Your task to perform on an android device: change the clock display to digital Image 0: 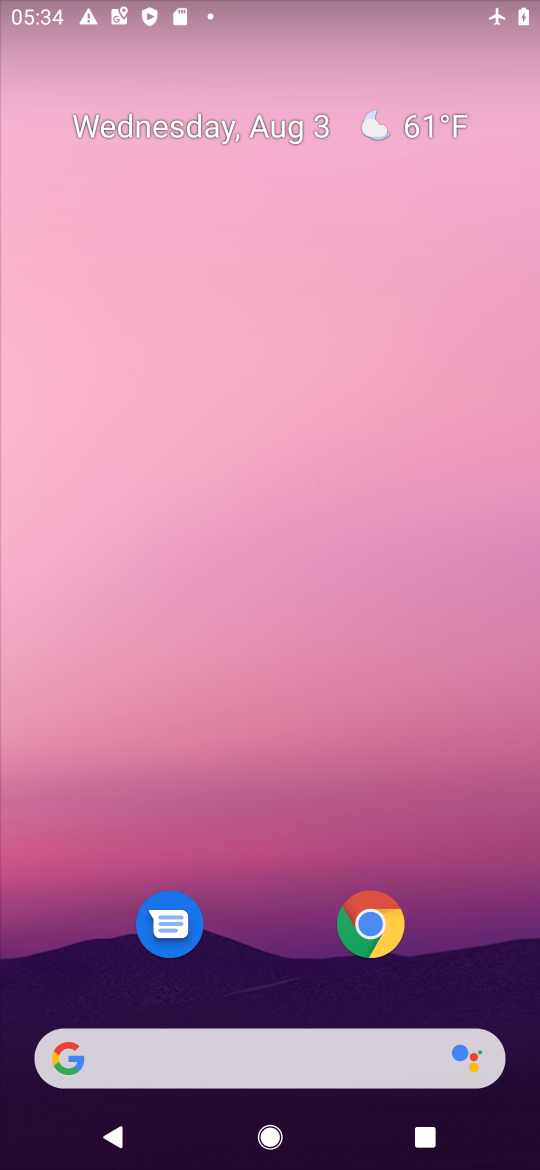
Step 0: drag from (261, 925) to (209, 268)
Your task to perform on an android device: change the clock display to digital Image 1: 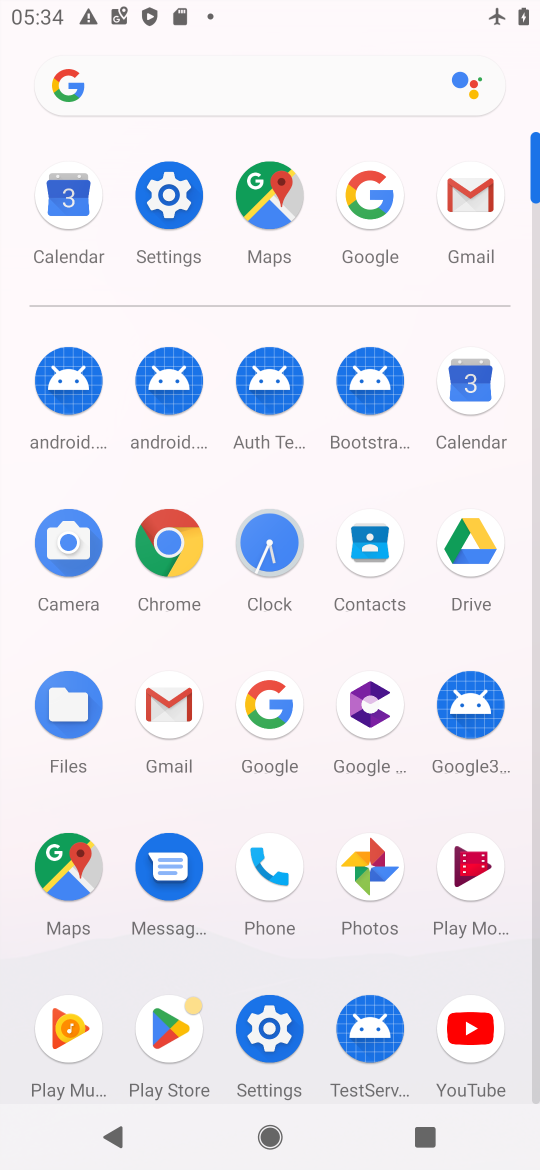
Step 1: click (288, 550)
Your task to perform on an android device: change the clock display to digital Image 2: 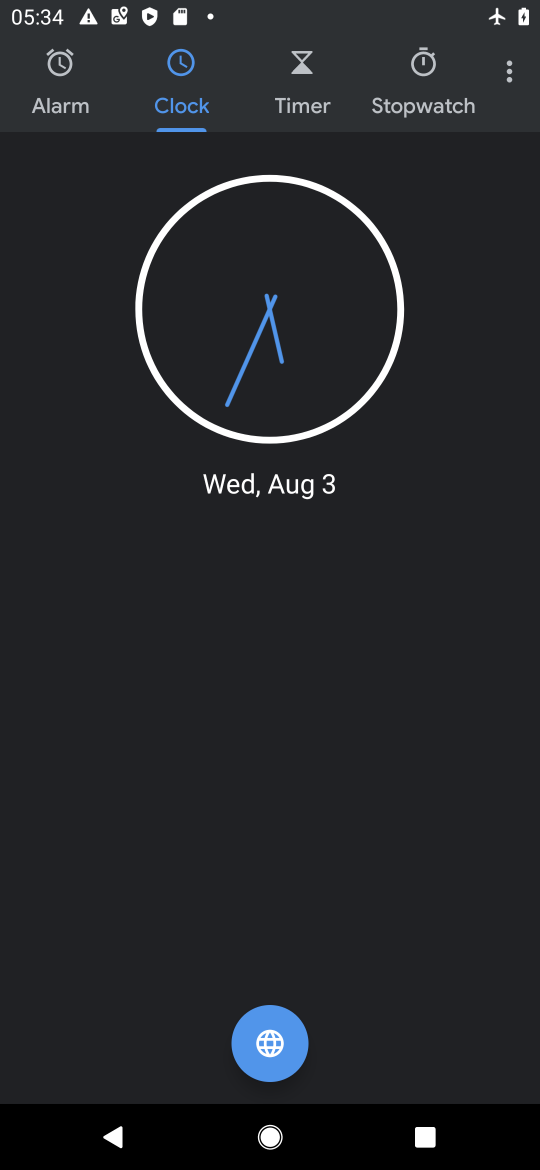
Step 2: click (508, 82)
Your task to perform on an android device: change the clock display to digital Image 3: 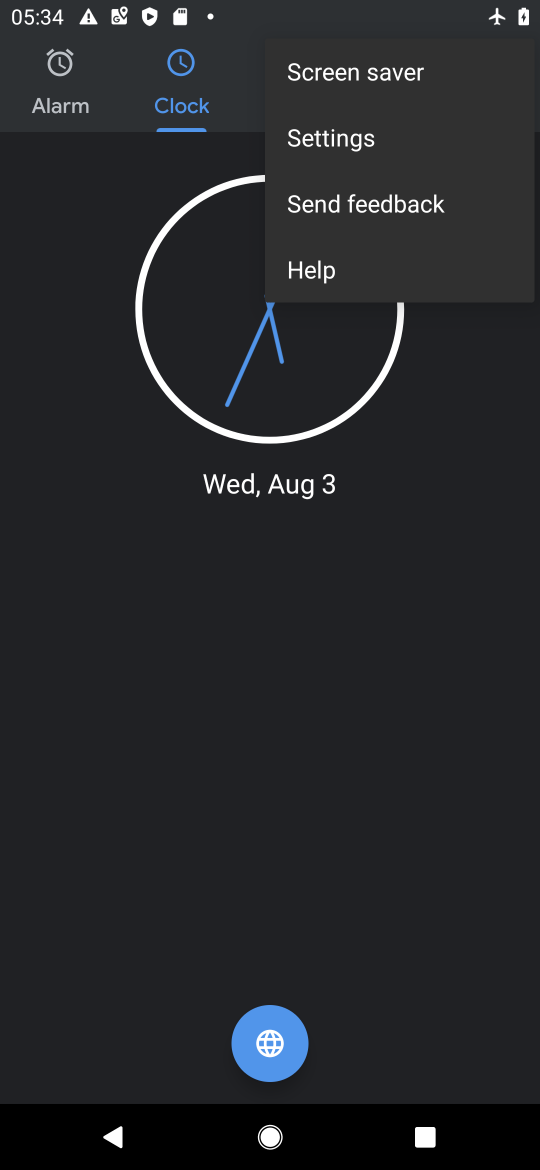
Step 3: click (360, 157)
Your task to perform on an android device: change the clock display to digital Image 4: 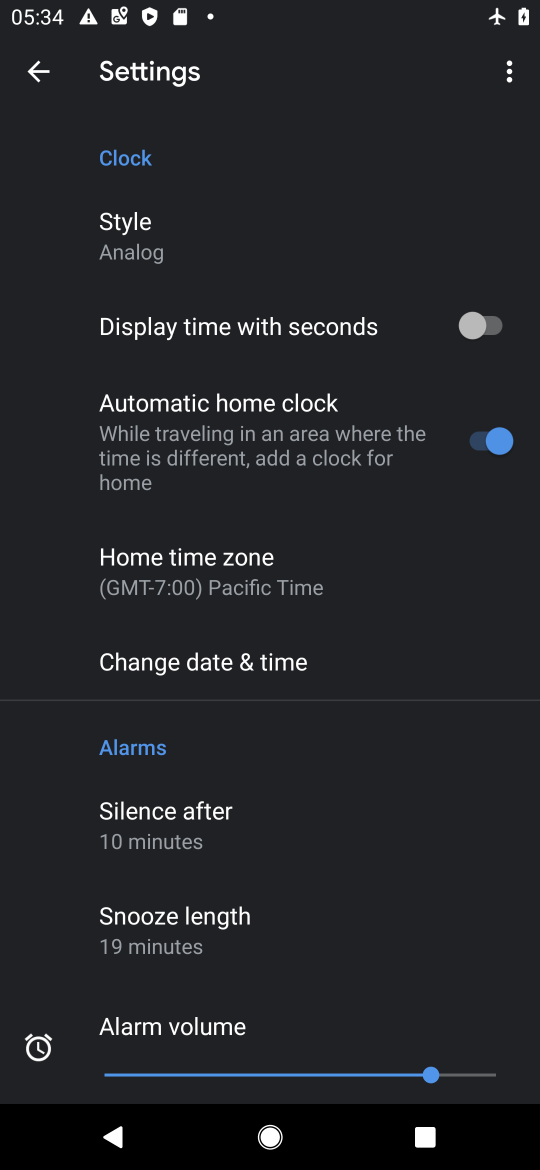
Step 4: click (146, 250)
Your task to perform on an android device: change the clock display to digital Image 5: 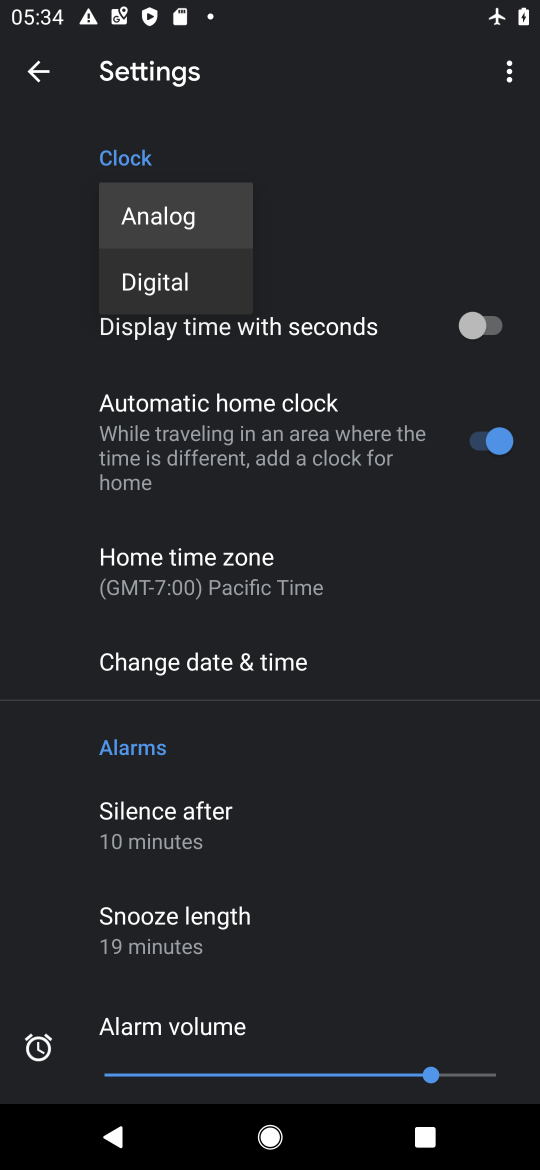
Step 5: click (167, 282)
Your task to perform on an android device: change the clock display to digital Image 6: 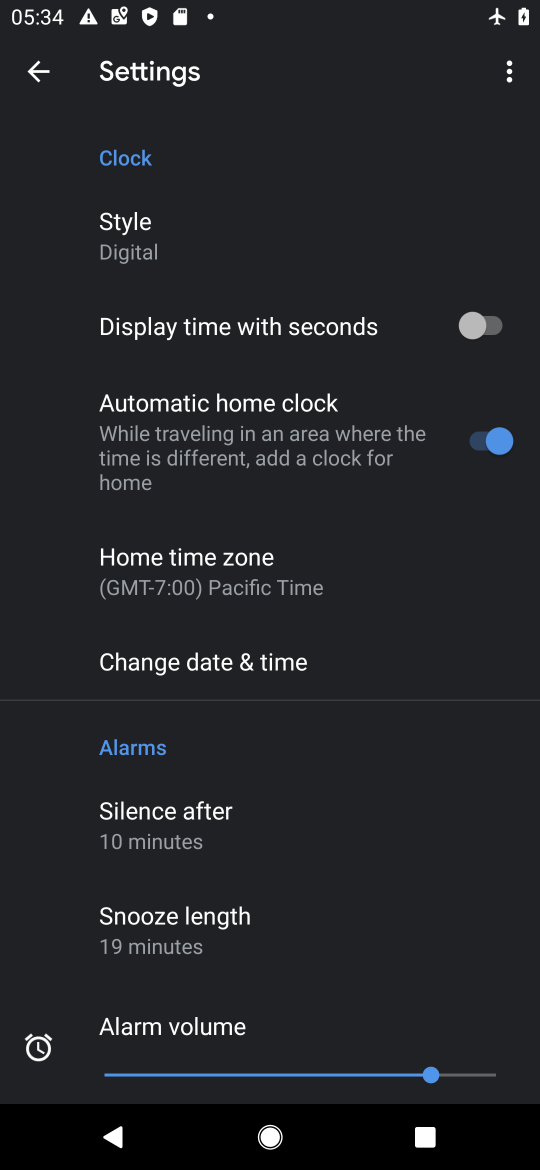
Step 6: task complete